Your task to perform on an android device: Open internet settings Image 0: 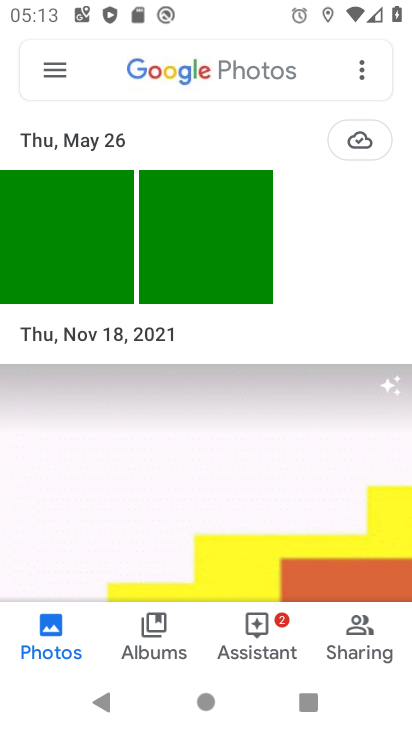
Step 0: press home button
Your task to perform on an android device: Open internet settings Image 1: 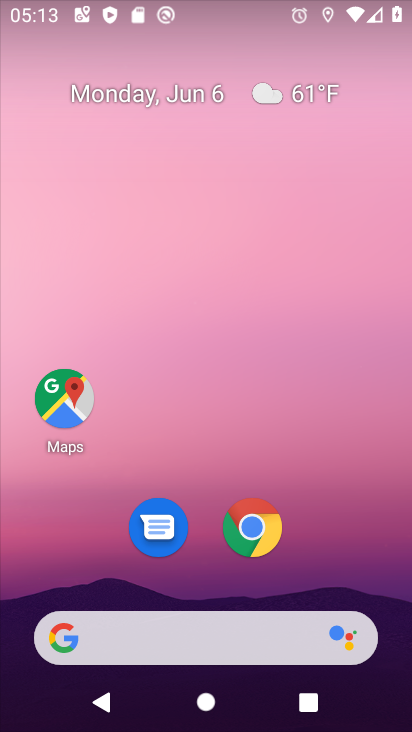
Step 1: drag from (388, 608) to (372, 4)
Your task to perform on an android device: Open internet settings Image 2: 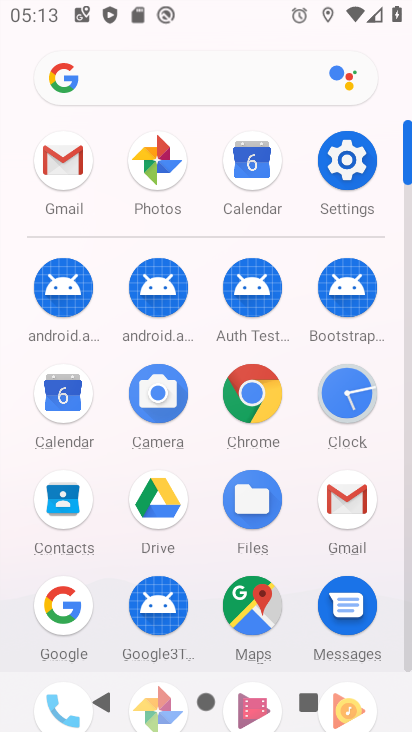
Step 2: click (350, 151)
Your task to perform on an android device: Open internet settings Image 3: 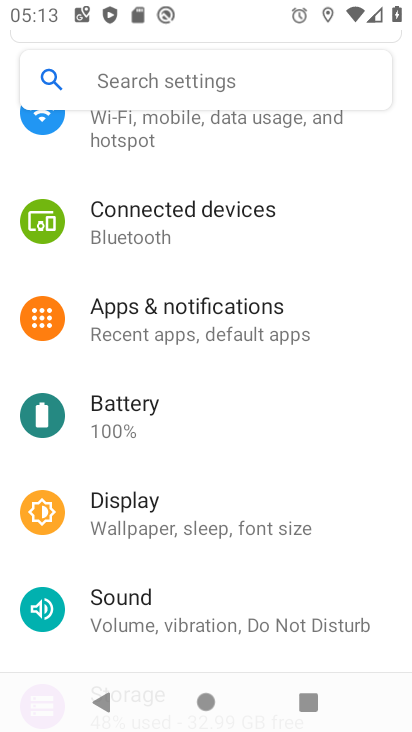
Step 3: drag from (264, 166) to (332, 612)
Your task to perform on an android device: Open internet settings Image 4: 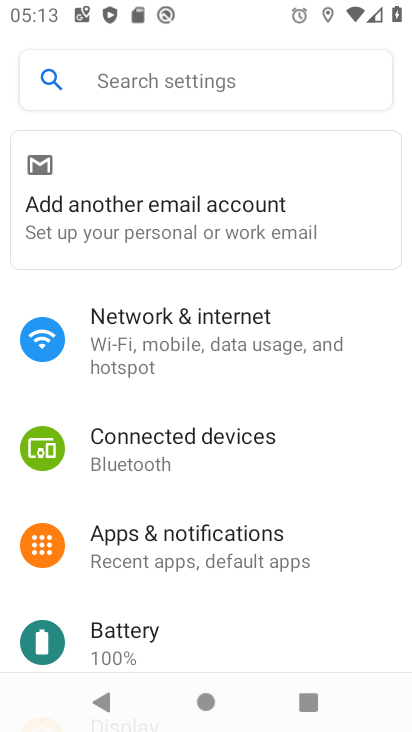
Step 4: click (162, 329)
Your task to perform on an android device: Open internet settings Image 5: 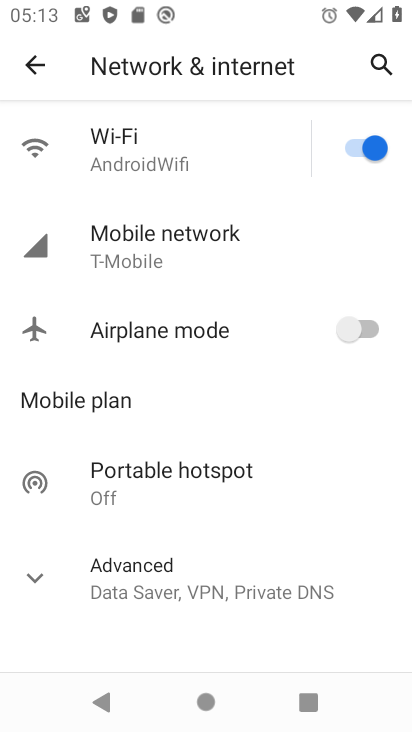
Step 5: click (245, 150)
Your task to perform on an android device: Open internet settings Image 6: 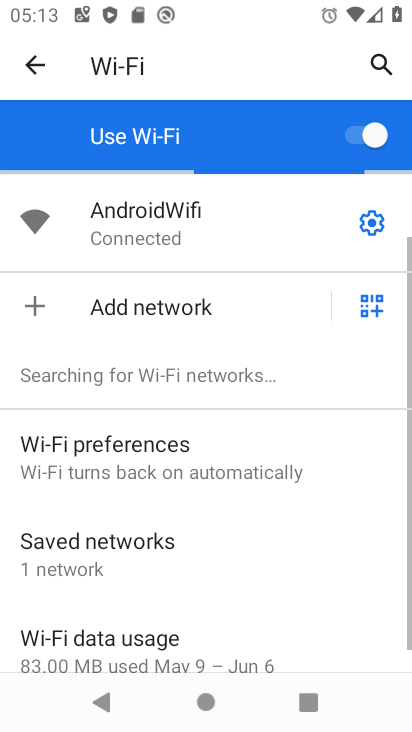
Step 6: click (387, 216)
Your task to perform on an android device: Open internet settings Image 7: 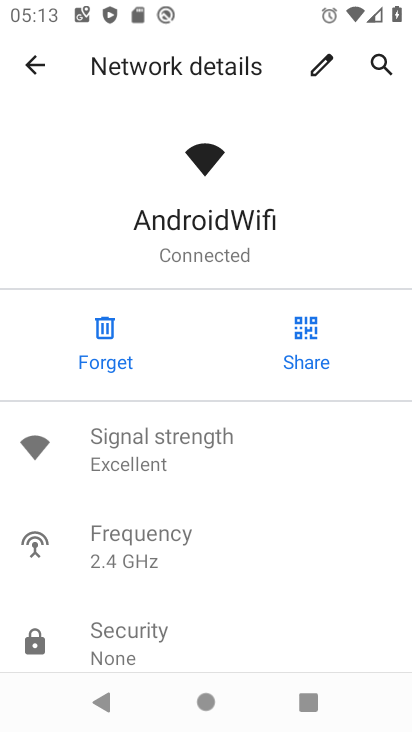
Step 7: task complete